Your task to perform on an android device: stop showing notifications on the lock screen Image 0: 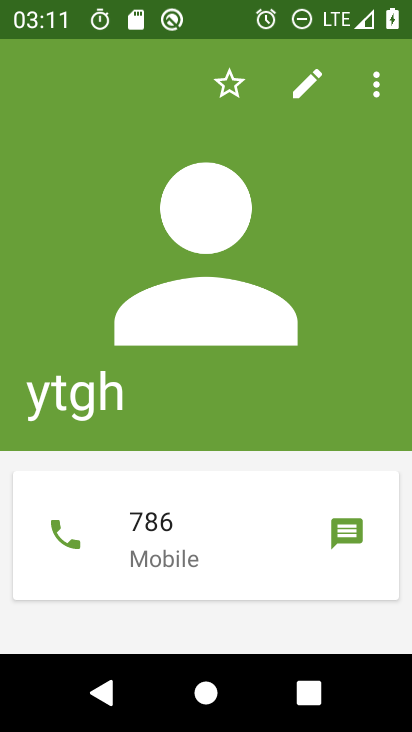
Step 0: press home button
Your task to perform on an android device: stop showing notifications on the lock screen Image 1: 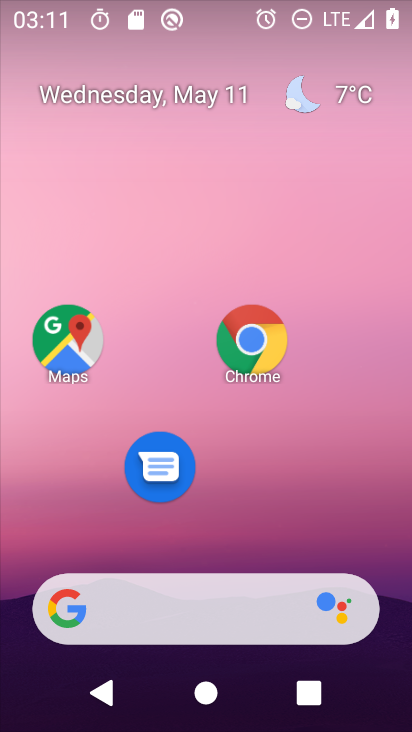
Step 1: drag from (164, 610) to (280, 54)
Your task to perform on an android device: stop showing notifications on the lock screen Image 2: 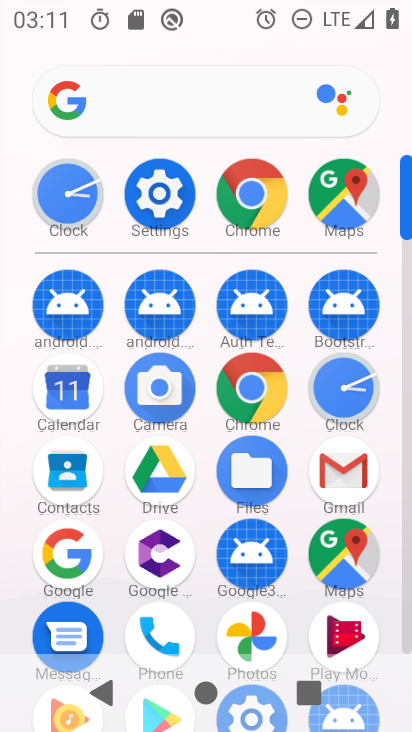
Step 2: click (145, 216)
Your task to perform on an android device: stop showing notifications on the lock screen Image 3: 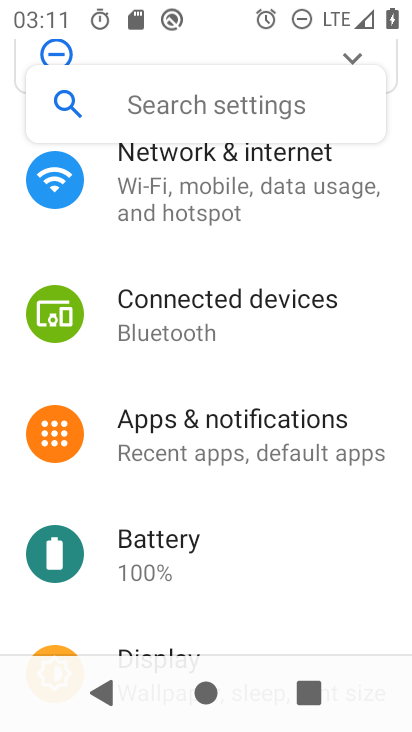
Step 3: click (218, 445)
Your task to perform on an android device: stop showing notifications on the lock screen Image 4: 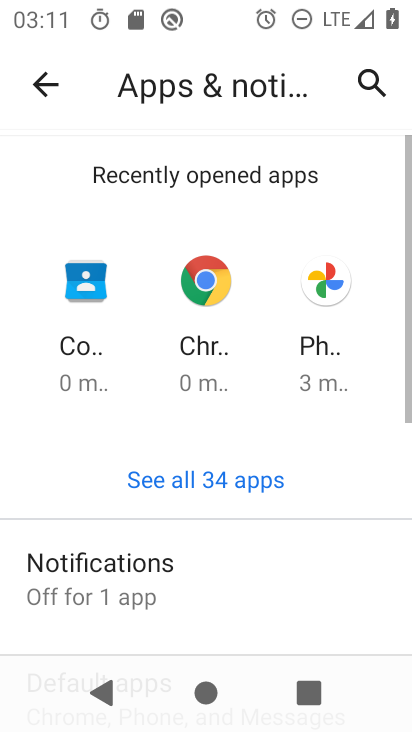
Step 4: click (150, 560)
Your task to perform on an android device: stop showing notifications on the lock screen Image 5: 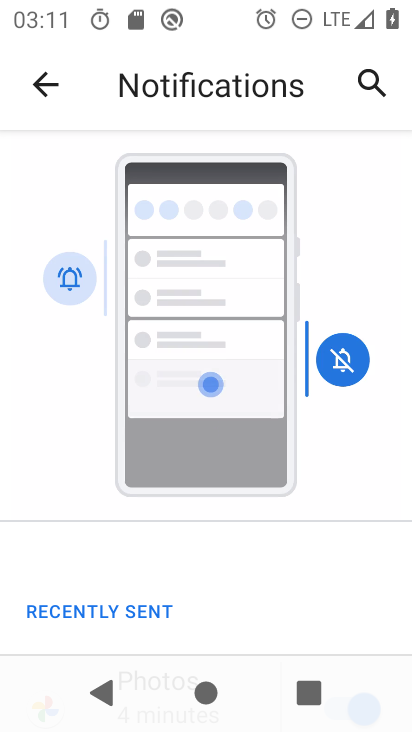
Step 5: drag from (228, 611) to (402, 142)
Your task to perform on an android device: stop showing notifications on the lock screen Image 6: 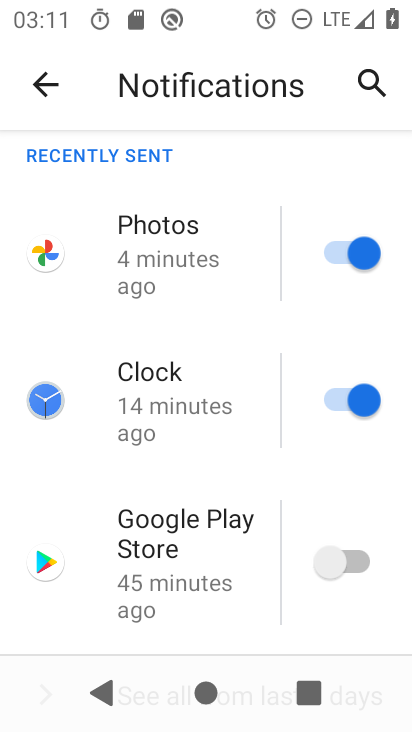
Step 6: drag from (202, 589) to (314, 226)
Your task to perform on an android device: stop showing notifications on the lock screen Image 7: 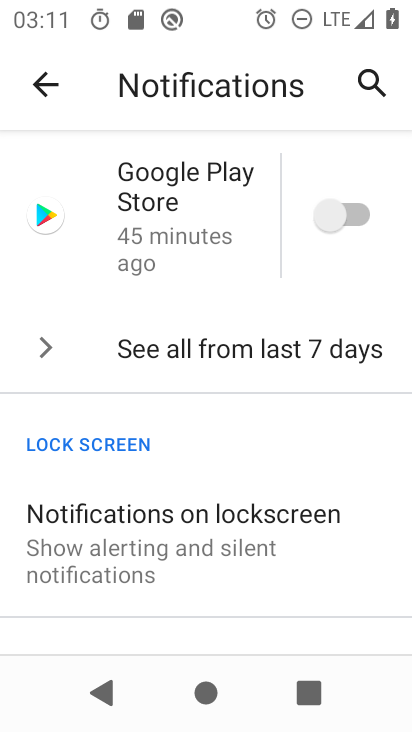
Step 7: drag from (226, 456) to (283, 197)
Your task to perform on an android device: stop showing notifications on the lock screen Image 8: 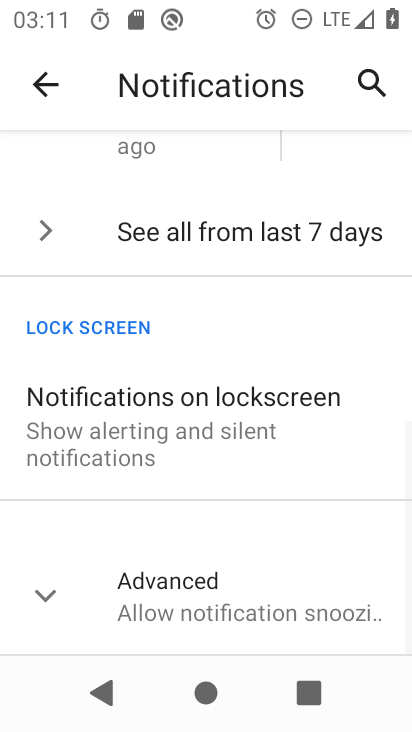
Step 8: click (171, 399)
Your task to perform on an android device: stop showing notifications on the lock screen Image 9: 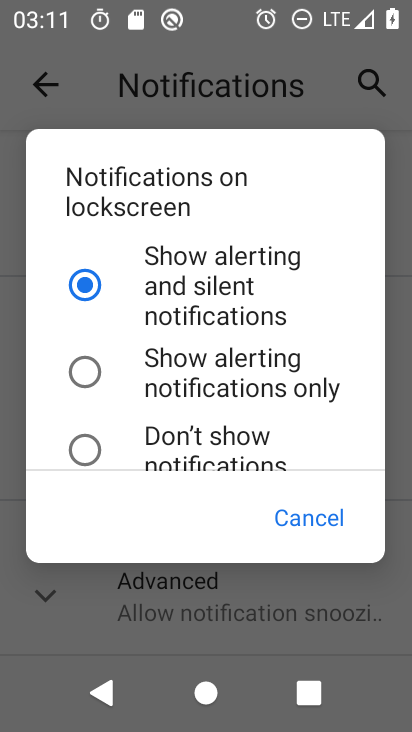
Step 9: click (94, 450)
Your task to perform on an android device: stop showing notifications on the lock screen Image 10: 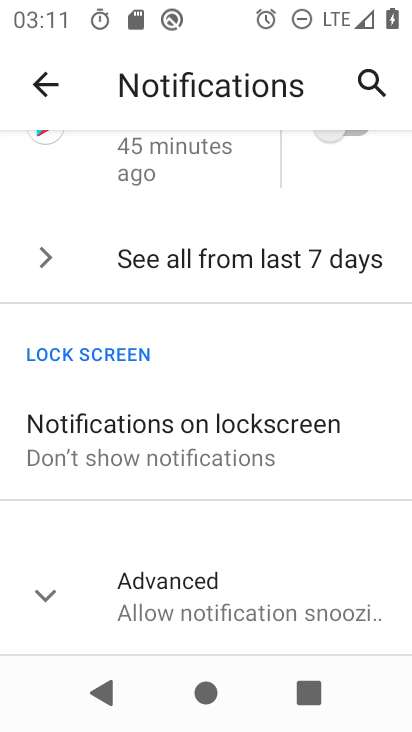
Step 10: task complete